Your task to perform on an android device: add a label to a message in the gmail app Image 0: 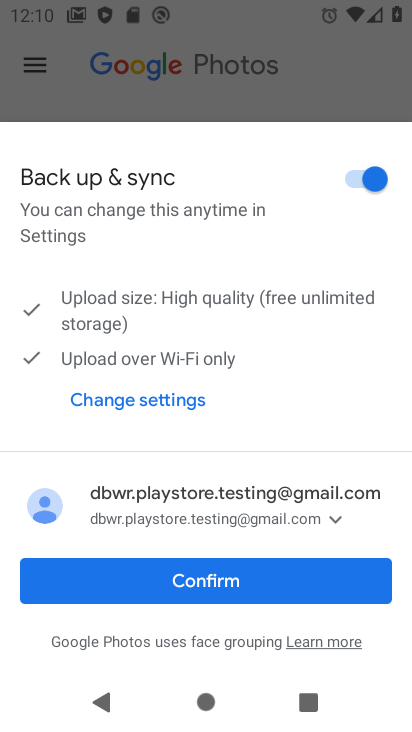
Step 0: press home button
Your task to perform on an android device: add a label to a message in the gmail app Image 1: 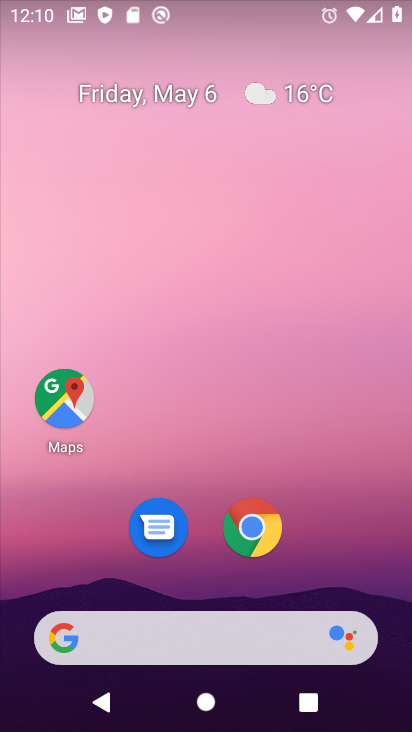
Step 1: drag from (316, 508) to (115, 99)
Your task to perform on an android device: add a label to a message in the gmail app Image 2: 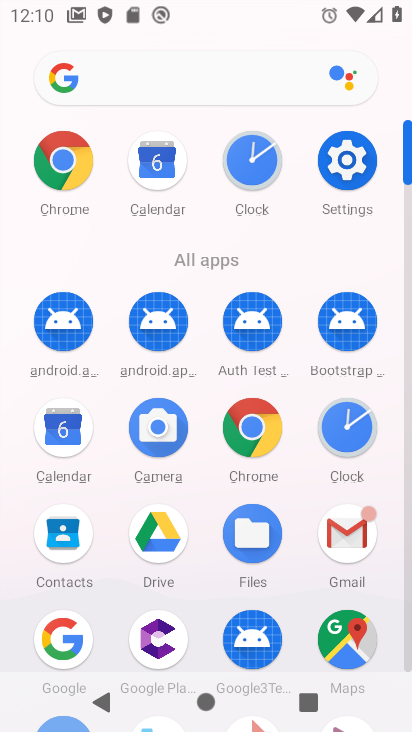
Step 2: click (352, 529)
Your task to perform on an android device: add a label to a message in the gmail app Image 3: 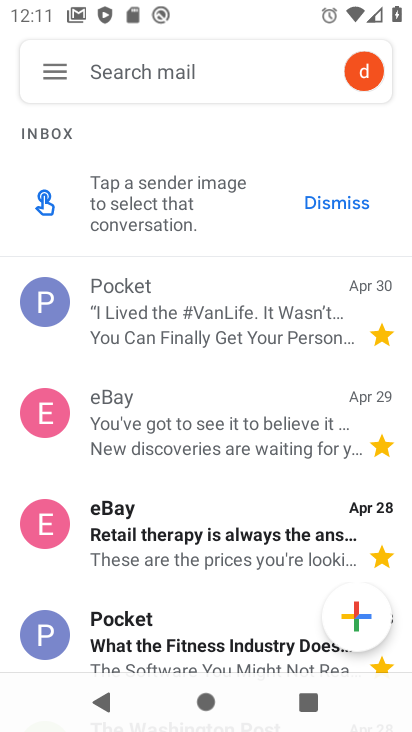
Step 3: click (154, 326)
Your task to perform on an android device: add a label to a message in the gmail app Image 4: 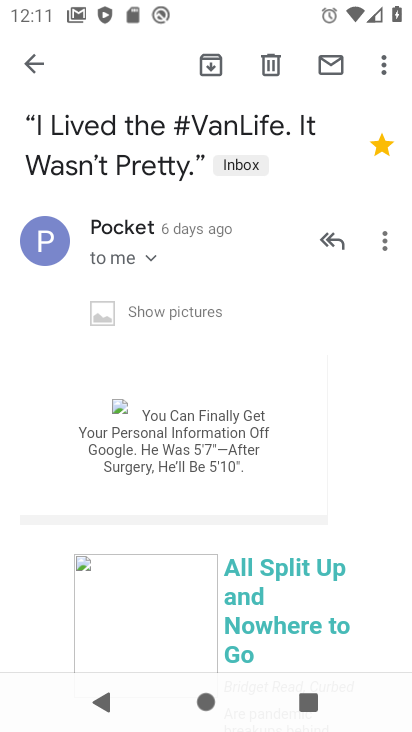
Step 4: click (379, 66)
Your task to perform on an android device: add a label to a message in the gmail app Image 5: 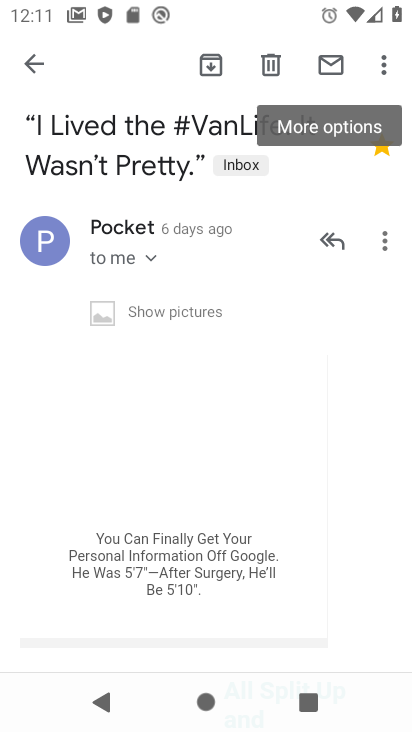
Step 5: click (383, 64)
Your task to perform on an android device: add a label to a message in the gmail app Image 6: 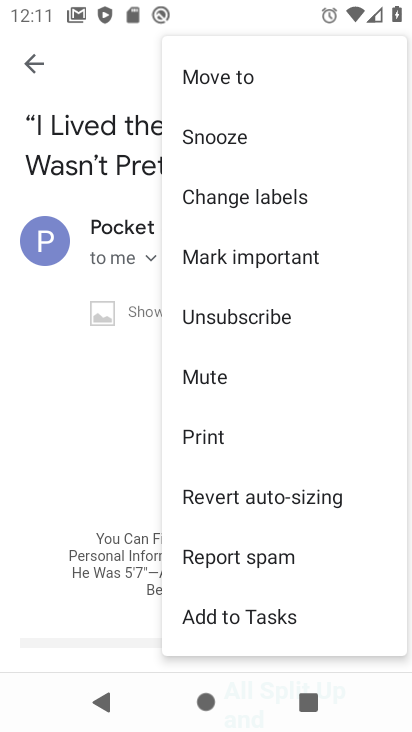
Step 6: click (225, 192)
Your task to perform on an android device: add a label to a message in the gmail app Image 7: 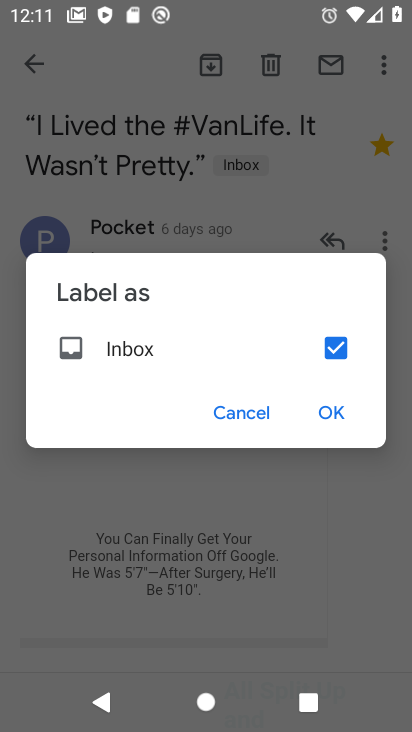
Step 7: click (338, 347)
Your task to perform on an android device: add a label to a message in the gmail app Image 8: 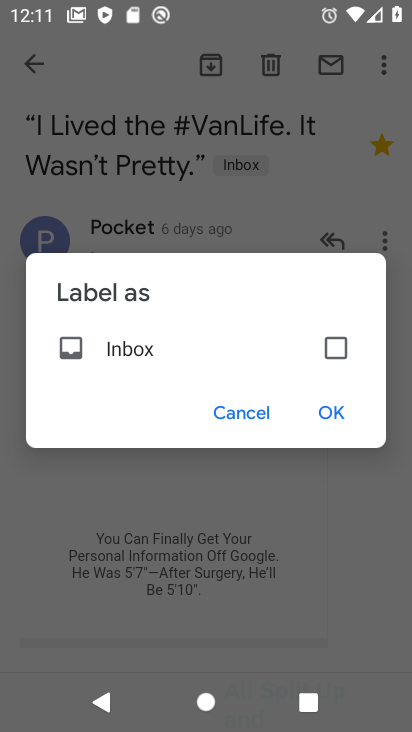
Step 8: click (332, 410)
Your task to perform on an android device: add a label to a message in the gmail app Image 9: 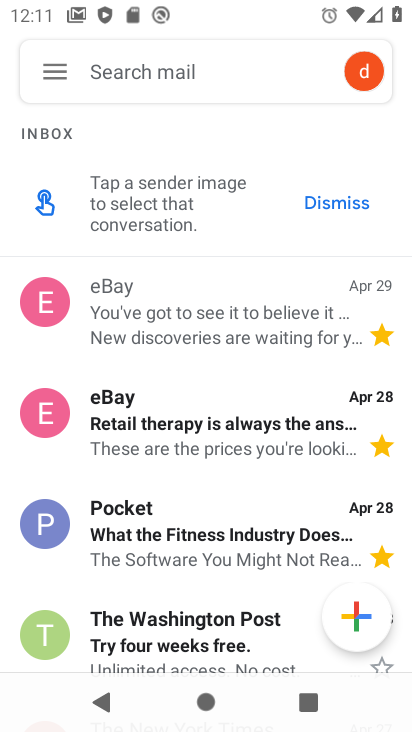
Step 9: task complete